Your task to perform on an android device: Search for logitech g pro on walmart.com, select the first entry, add it to the cart, then select checkout. Image 0: 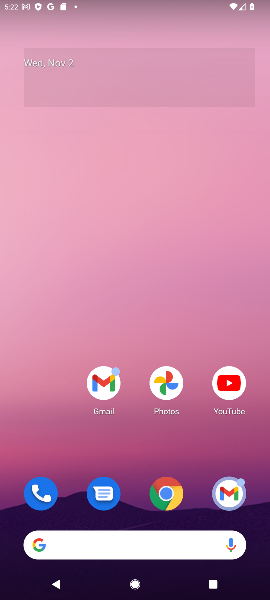
Step 0: drag from (133, 531) to (130, 103)
Your task to perform on an android device: Search for logitech g pro on walmart.com, select the first entry, add it to the cart, then select checkout. Image 1: 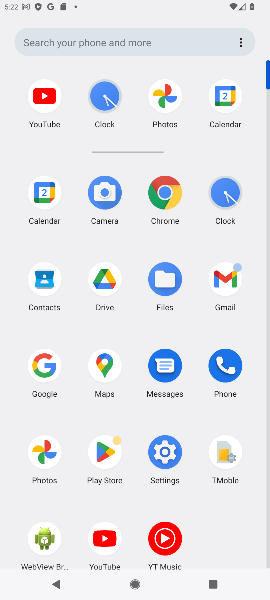
Step 1: click (41, 355)
Your task to perform on an android device: Search for logitech g pro on walmart.com, select the first entry, add it to the cart, then select checkout. Image 2: 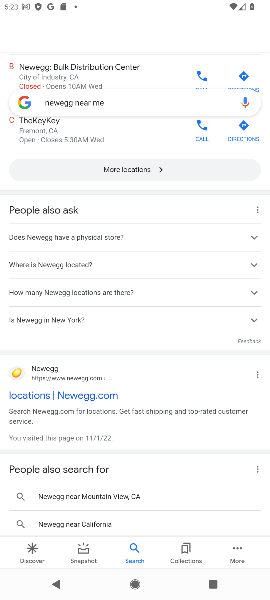
Step 2: click (121, 93)
Your task to perform on an android device: Search for logitech g pro on walmart.com, select the first entry, add it to the cart, then select checkout. Image 3: 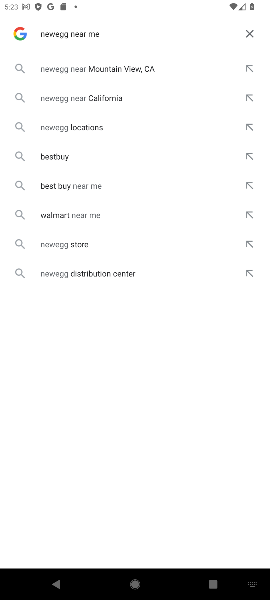
Step 3: click (252, 37)
Your task to perform on an android device: Search for logitech g pro on walmart.com, select the first entry, add it to the cart, then select checkout. Image 4: 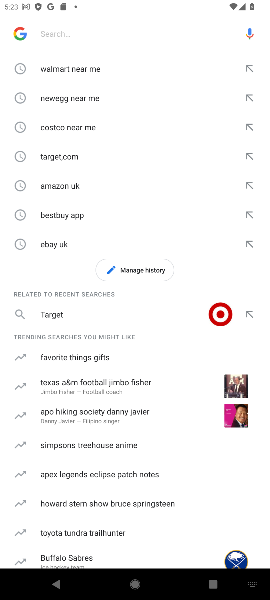
Step 4: click (85, 66)
Your task to perform on an android device: Search for logitech g pro on walmart.com, select the first entry, add it to the cart, then select checkout. Image 5: 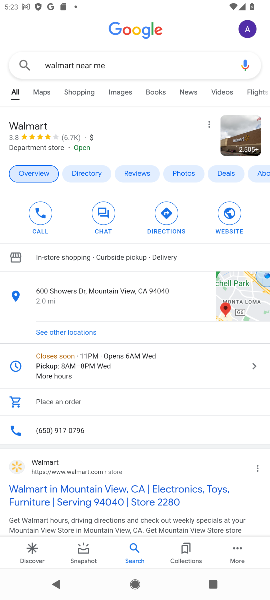
Step 5: click (14, 464)
Your task to perform on an android device: Search for logitech g pro on walmart.com, select the first entry, add it to the cart, then select checkout. Image 6: 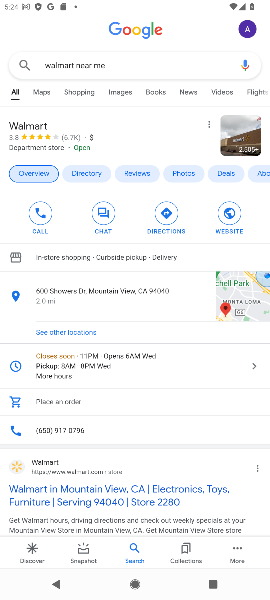
Step 6: click (15, 470)
Your task to perform on an android device: Search for logitech g pro on walmart.com, select the first entry, add it to the cart, then select checkout. Image 7: 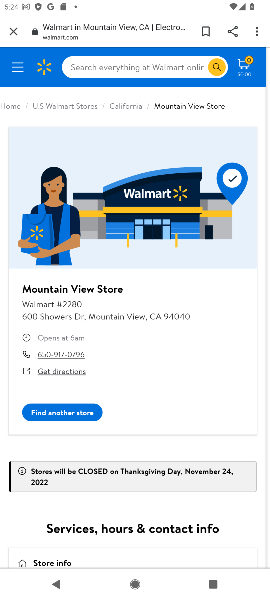
Step 7: click (110, 64)
Your task to perform on an android device: Search for logitech g pro on walmart.com, select the first entry, add it to the cart, then select checkout. Image 8: 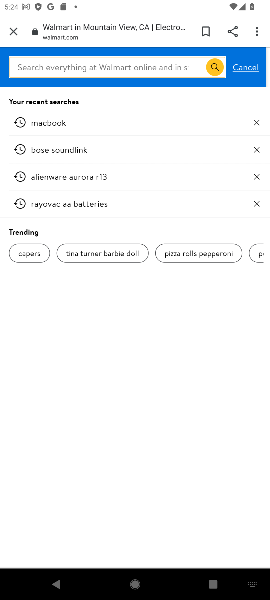
Step 8: click (154, 62)
Your task to perform on an android device: Search for logitech g pro on walmart.com, select the first entry, add it to the cart, then select checkout. Image 9: 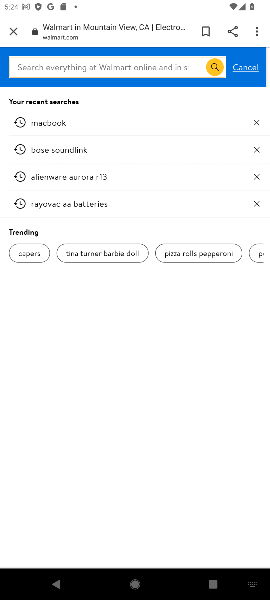
Step 9: type "logitech g pro  "
Your task to perform on an android device: Search for logitech g pro on walmart.com, select the first entry, add it to the cart, then select checkout. Image 10: 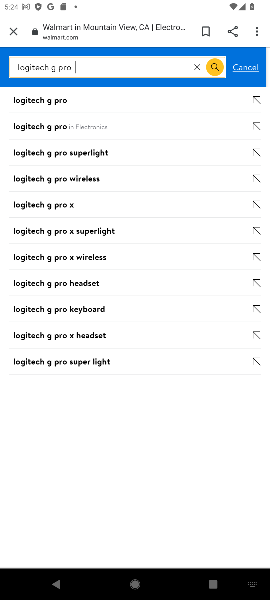
Step 10: click (36, 101)
Your task to perform on an android device: Search for logitech g pro on walmart.com, select the first entry, add it to the cart, then select checkout. Image 11: 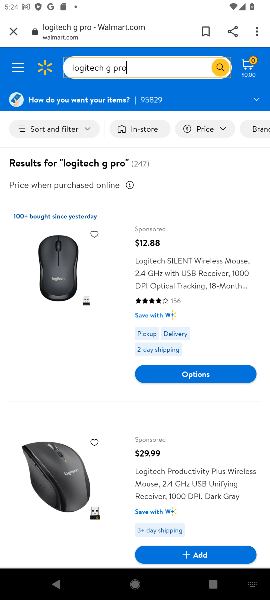
Step 11: click (162, 262)
Your task to perform on an android device: Search for logitech g pro on walmart.com, select the first entry, add it to the cart, then select checkout. Image 12: 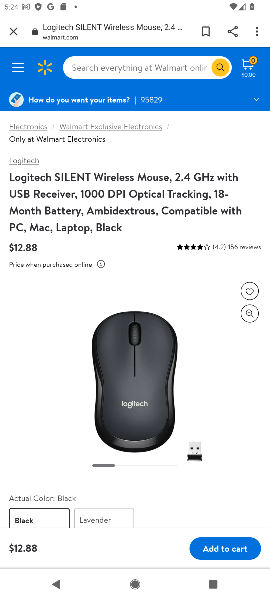
Step 12: click (238, 546)
Your task to perform on an android device: Search for logitech g pro on walmart.com, select the first entry, add it to the cart, then select checkout. Image 13: 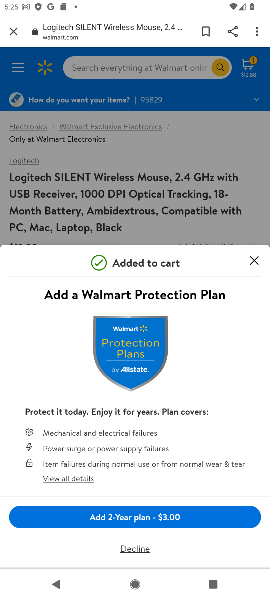
Step 13: task complete